Your task to perform on an android device: Open Youtube and go to the subscriptions tab Image 0: 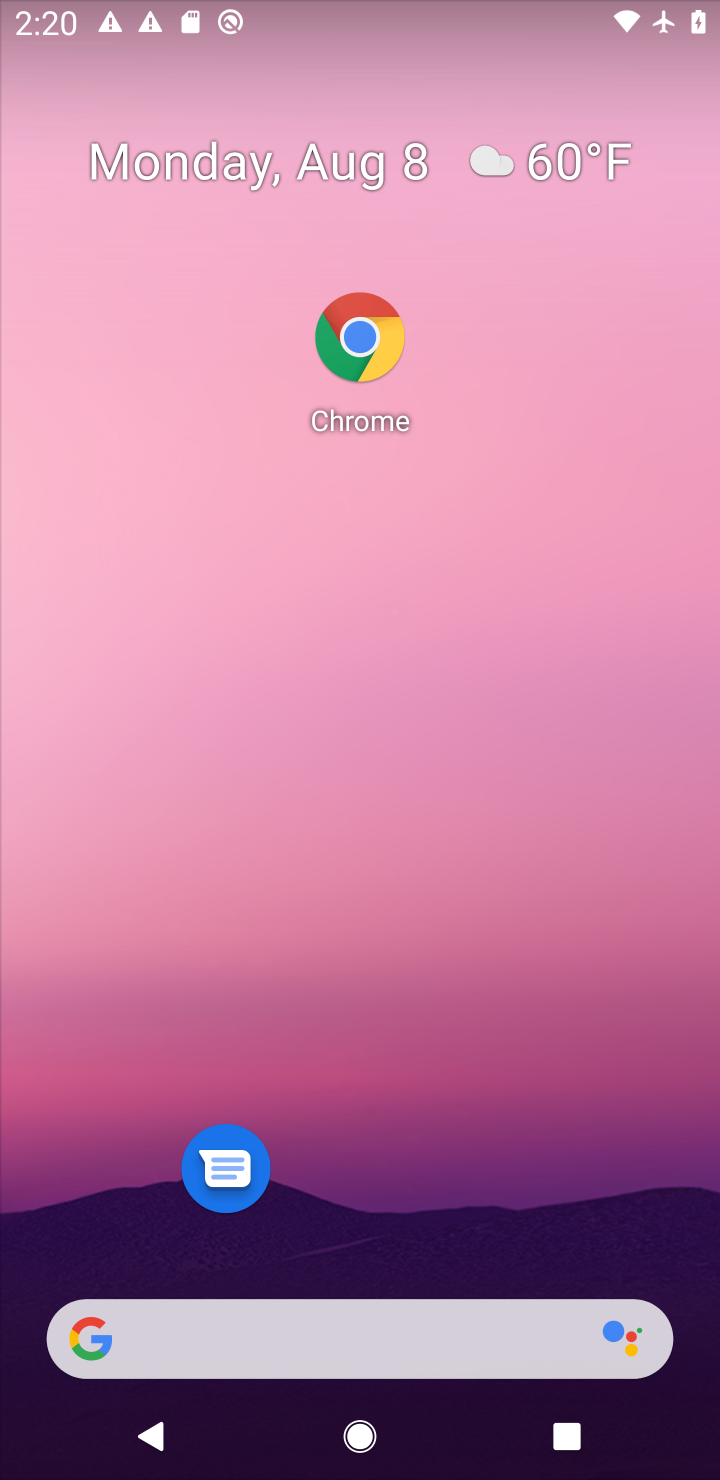
Step 0: drag from (500, 1269) to (502, 723)
Your task to perform on an android device: Open Youtube and go to the subscriptions tab Image 1: 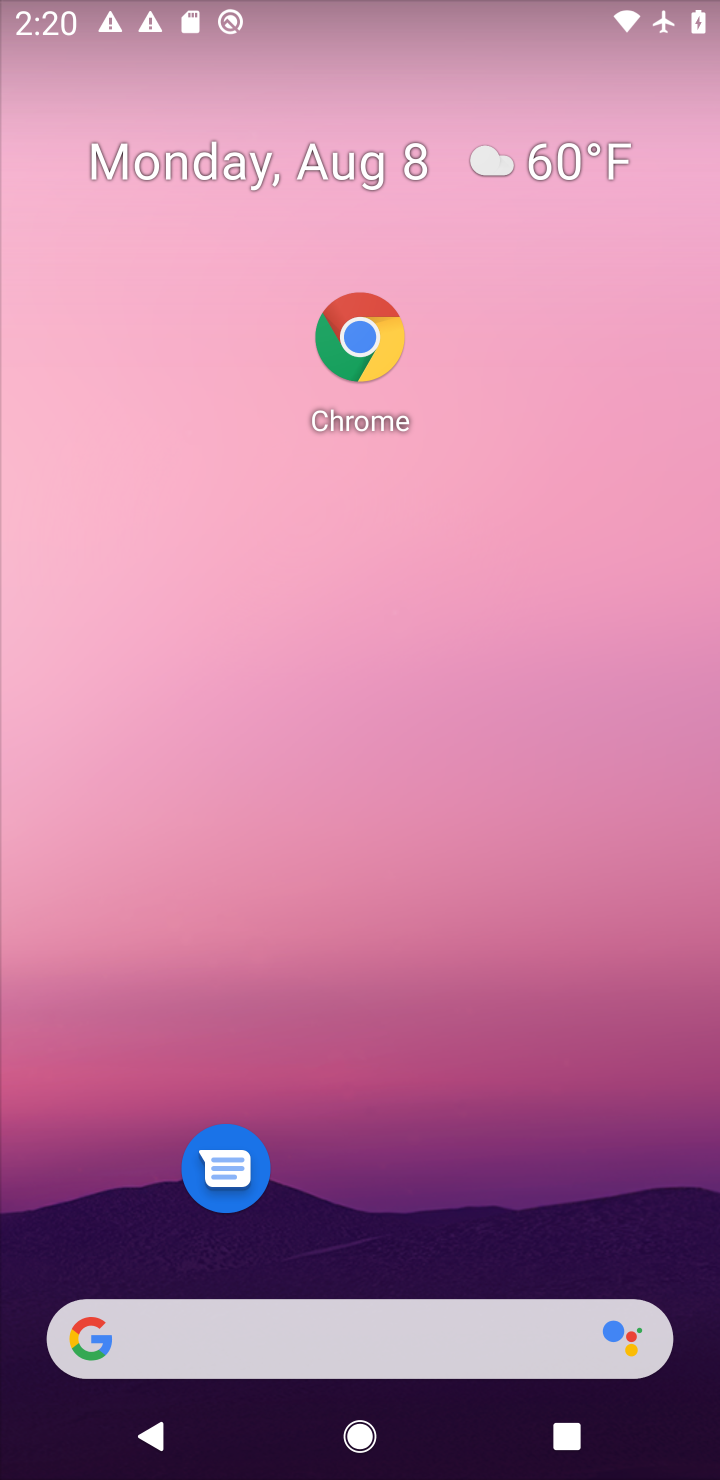
Step 1: task complete